Your task to perform on an android device: Open the calendar and show me this week's events Image 0: 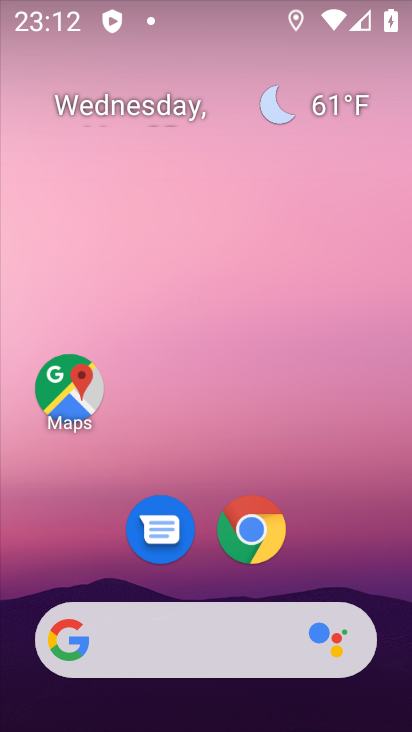
Step 0: drag from (381, 573) to (381, 197)
Your task to perform on an android device: Open the calendar and show me this week's events Image 1: 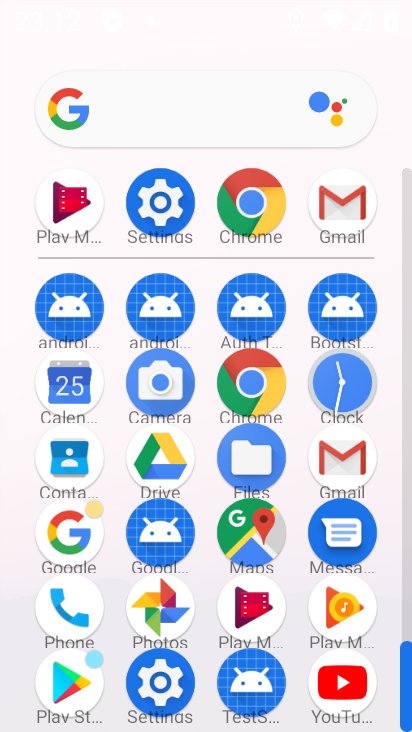
Step 1: click (72, 398)
Your task to perform on an android device: Open the calendar and show me this week's events Image 2: 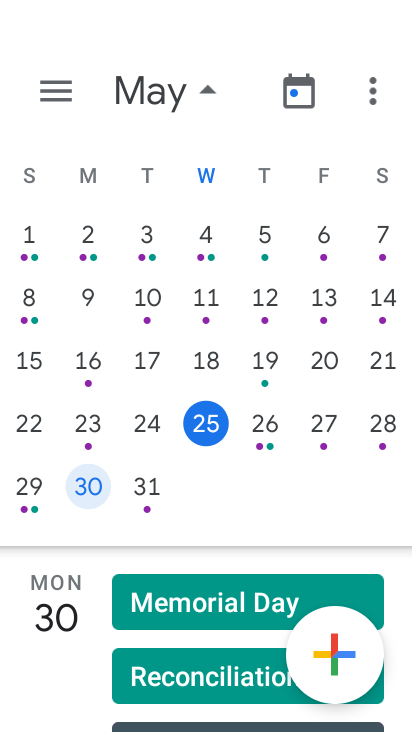
Step 2: click (260, 424)
Your task to perform on an android device: Open the calendar and show me this week's events Image 3: 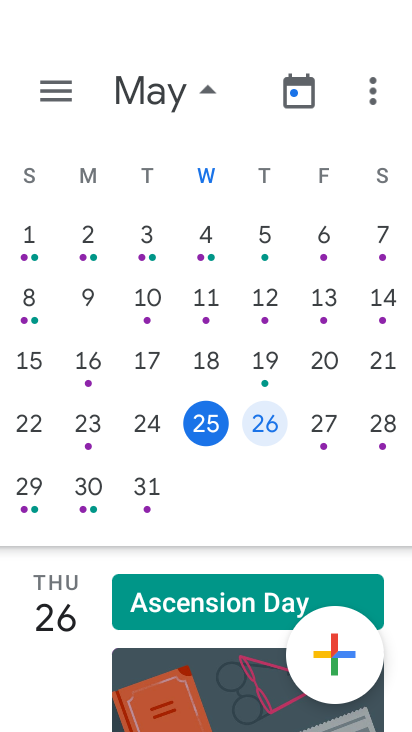
Step 3: task complete